Your task to perform on an android device: see tabs open on other devices in the chrome app Image 0: 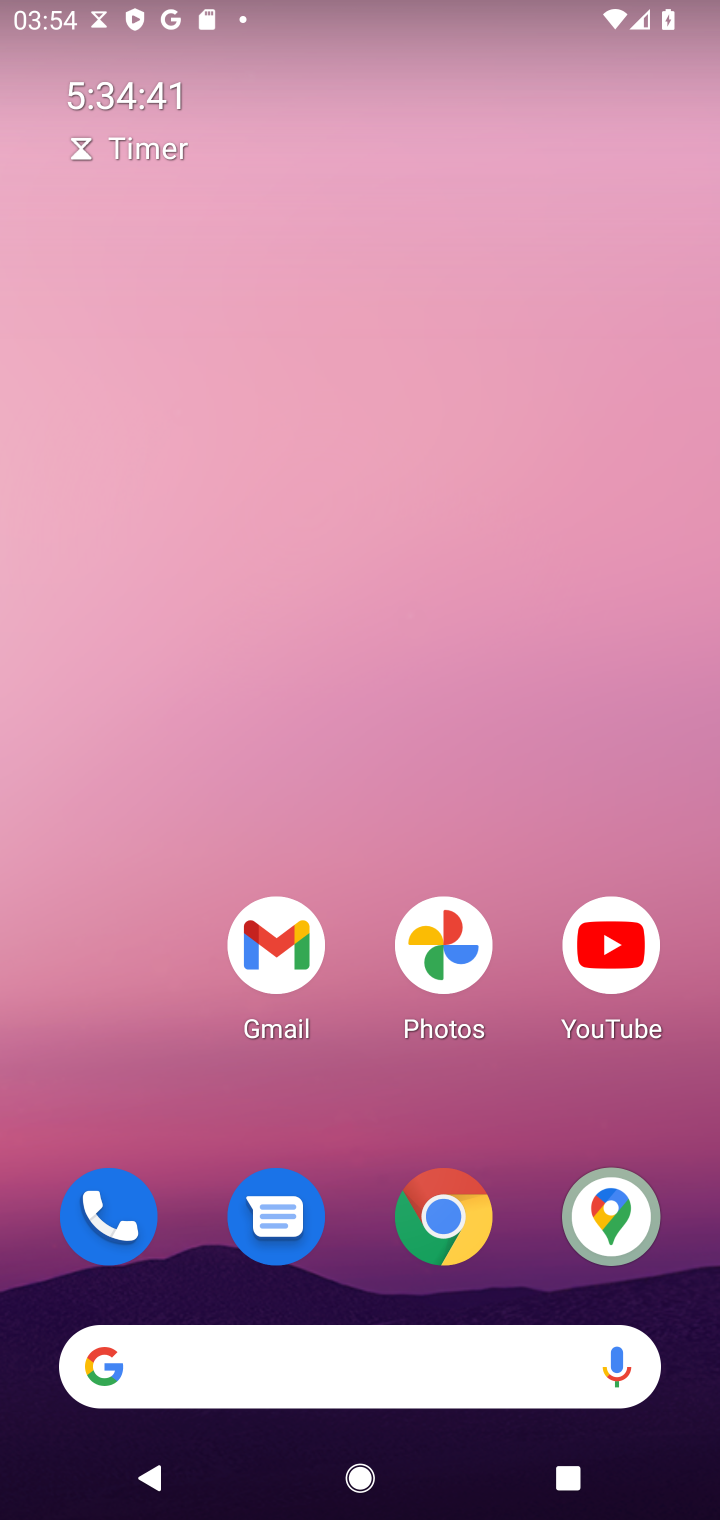
Step 0: click (438, 1186)
Your task to perform on an android device: see tabs open on other devices in the chrome app Image 1: 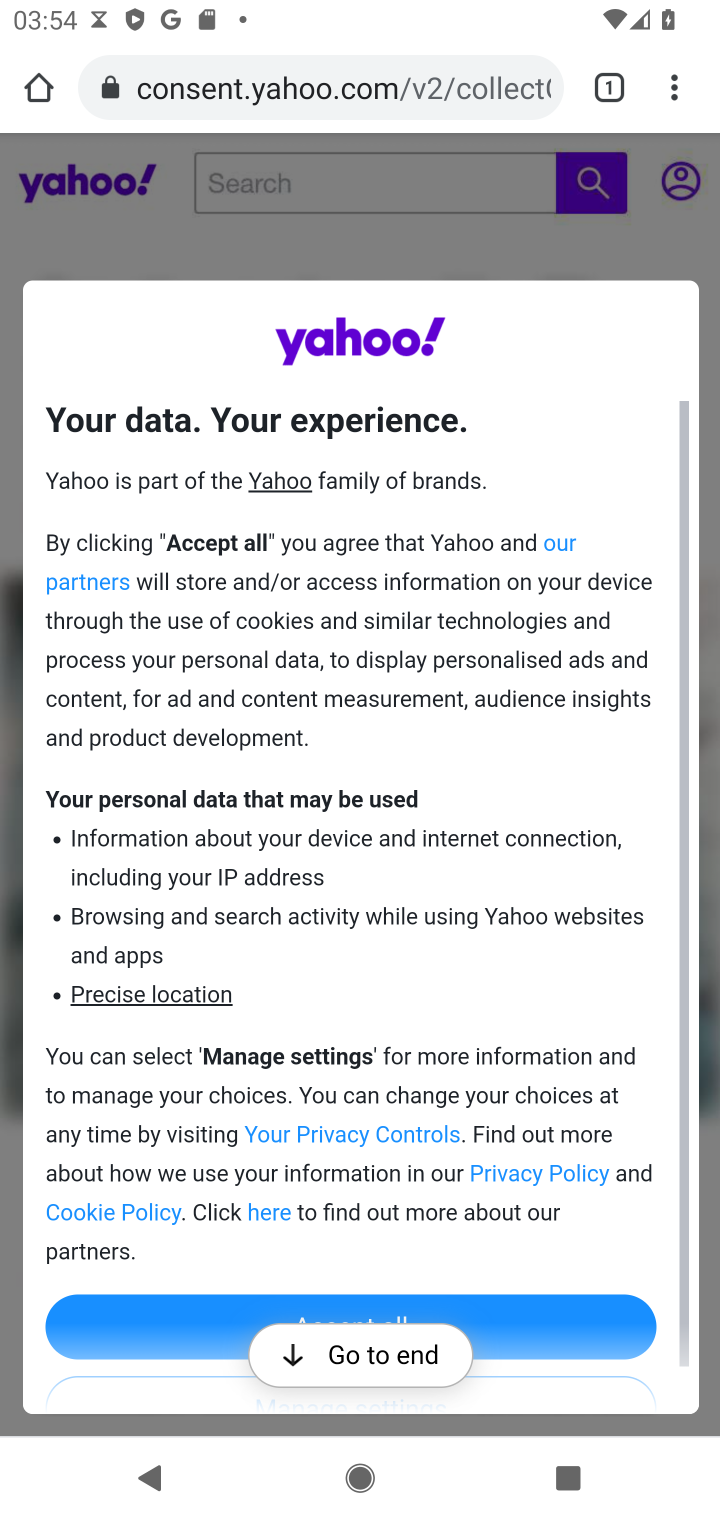
Step 1: click (673, 105)
Your task to perform on an android device: see tabs open on other devices in the chrome app Image 2: 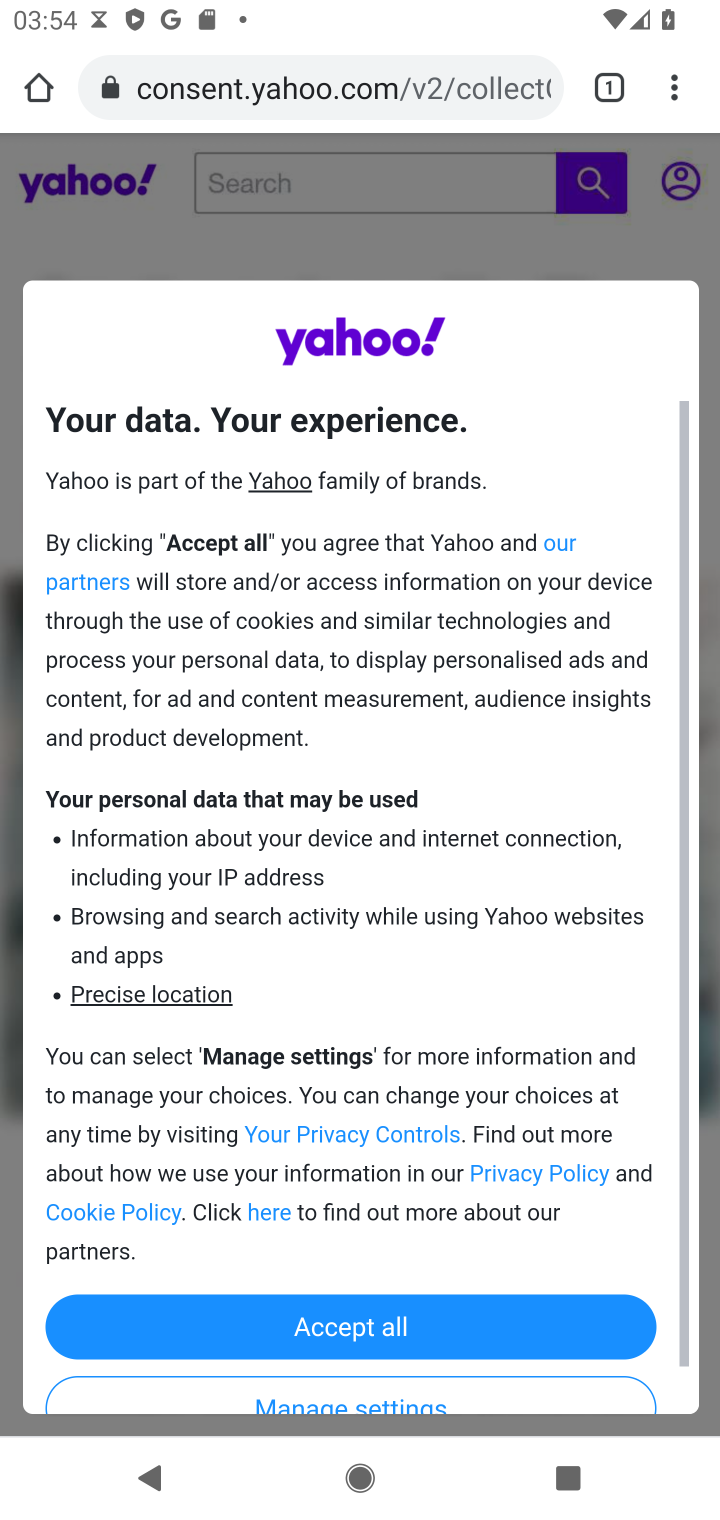
Step 2: click (673, 105)
Your task to perform on an android device: see tabs open on other devices in the chrome app Image 3: 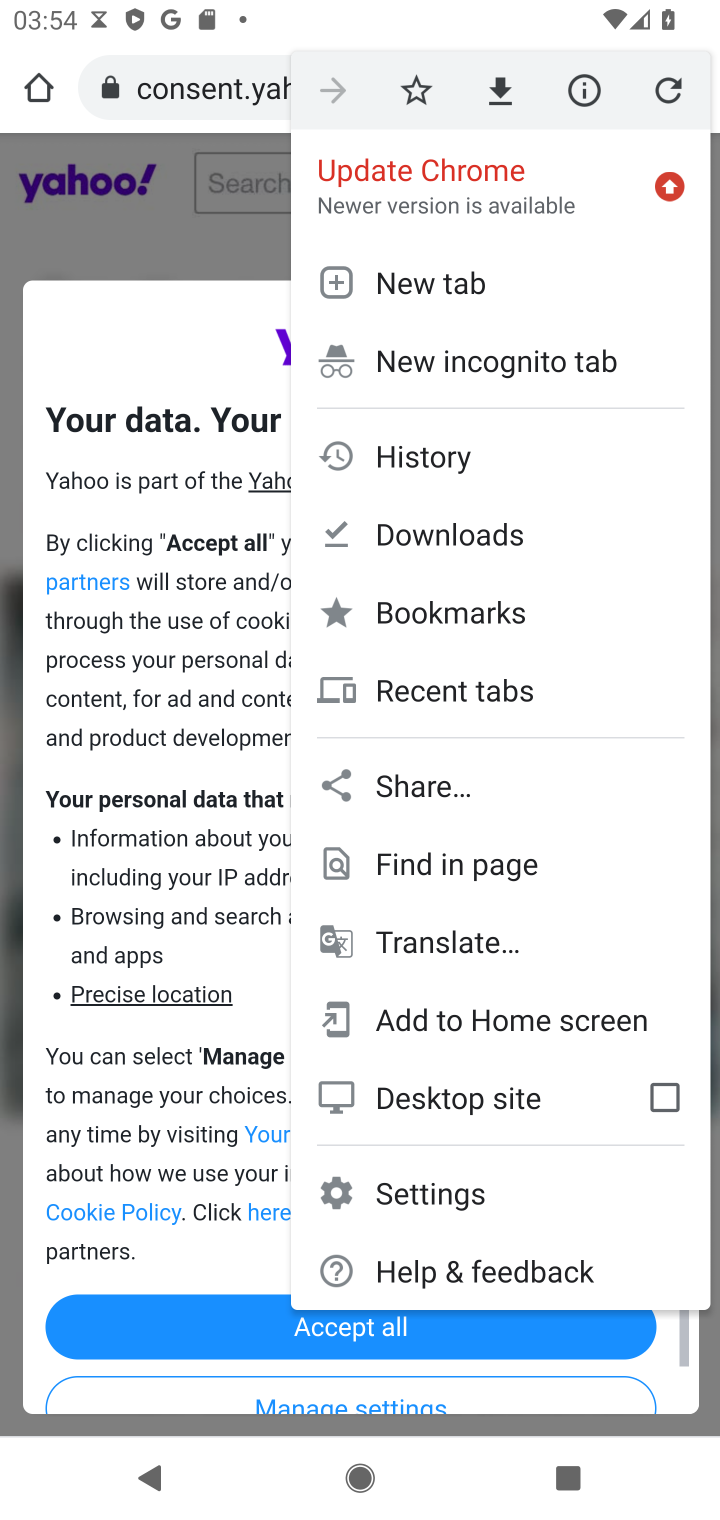
Step 3: click (452, 708)
Your task to perform on an android device: see tabs open on other devices in the chrome app Image 4: 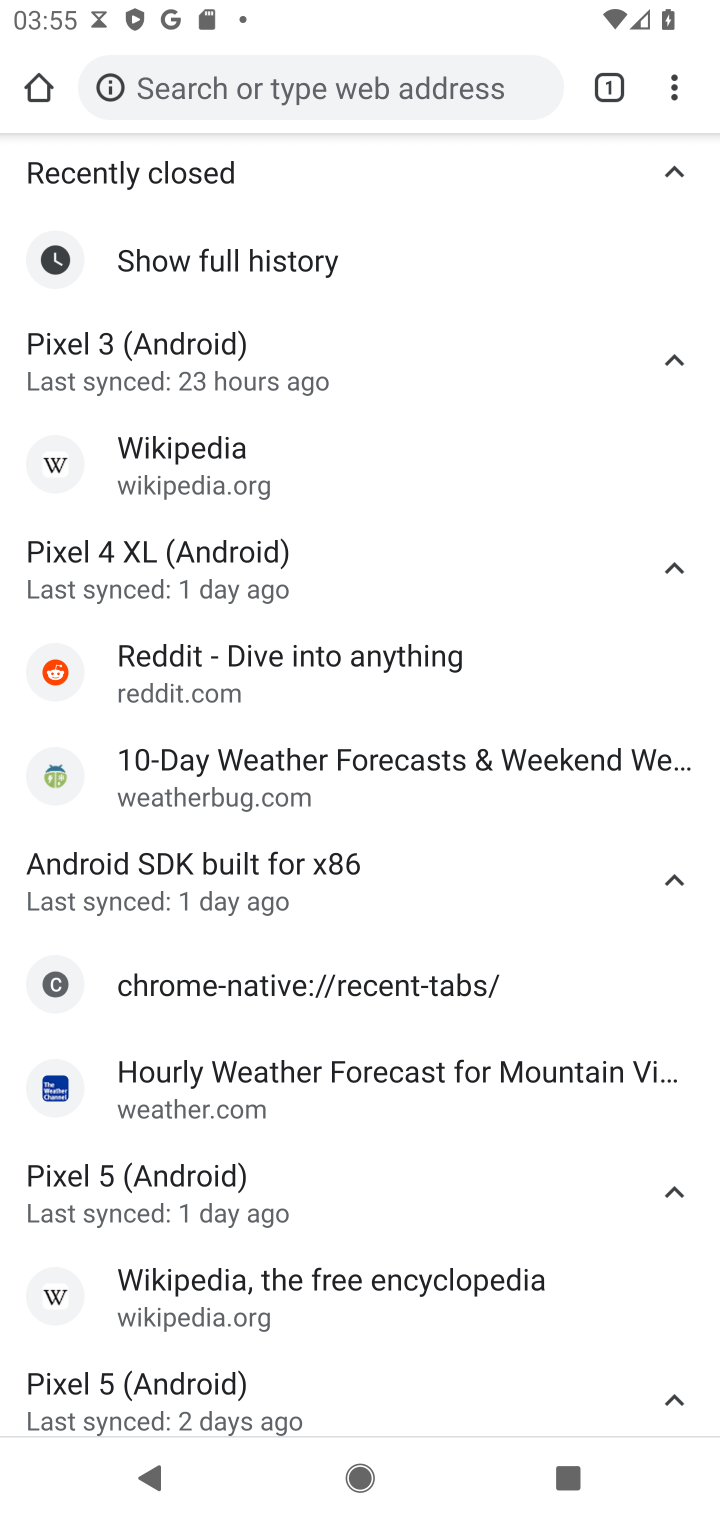
Step 4: task complete